Your task to perform on an android device: change keyboard looks Image 0: 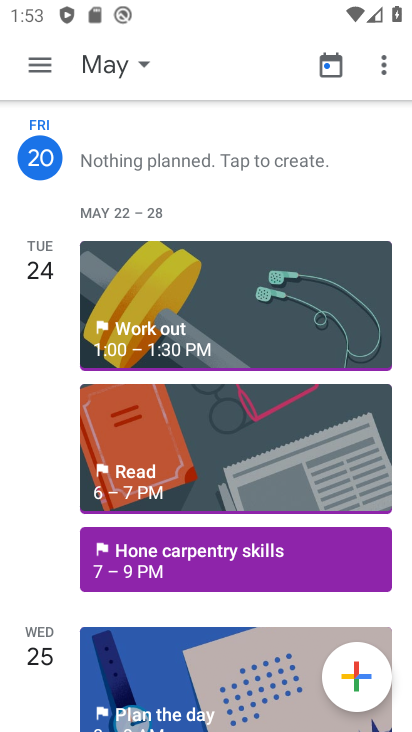
Step 0: press home button
Your task to perform on an android device: change keyboard looks Image 1: 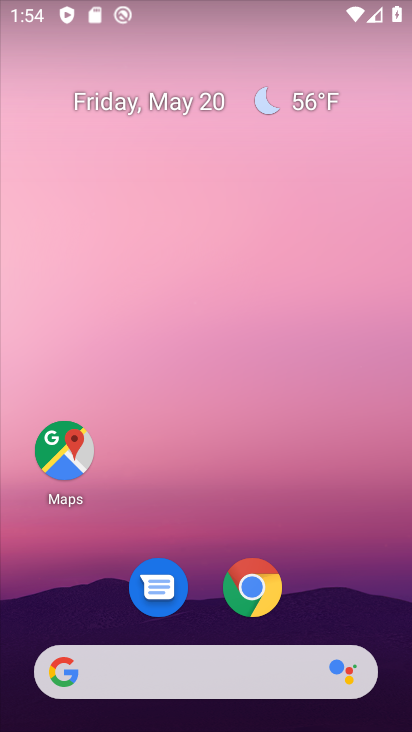
Step 1: drag from (355, 559) to (311, 55)
Your task to perform on an android device: change keyboard looks Image 2: 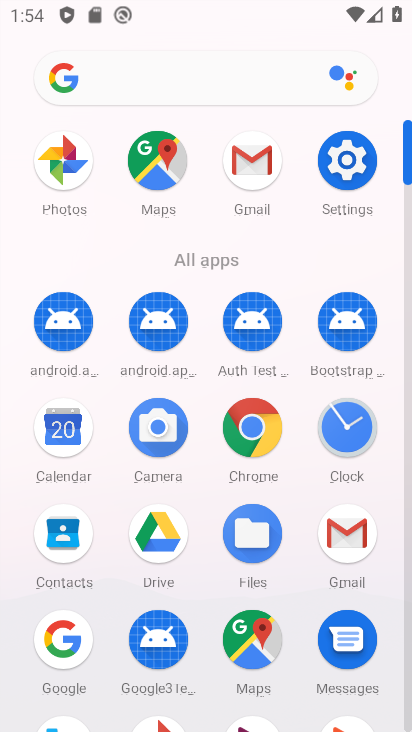
Step 2: click (327, 182)
Your task to perform on an android device: change keyboard looks Image 3: 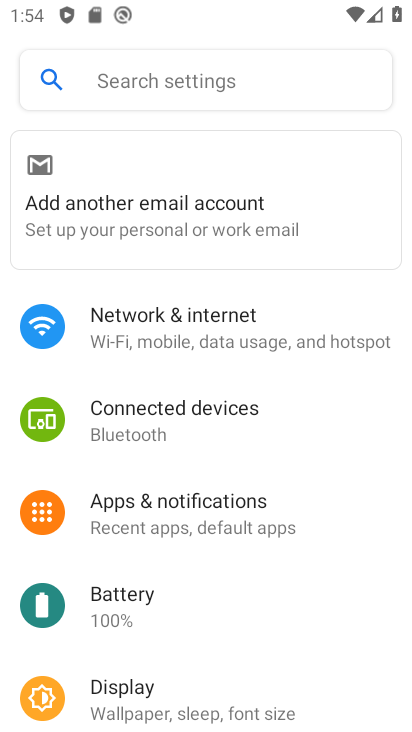
Step 3: drag from (334, 487) to (267, 102)
Your task to perform on an android device: change keyboard looks Image 4: 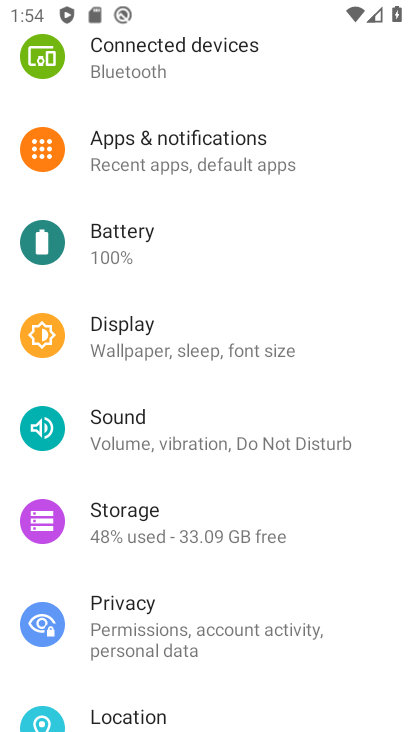
Step 4: drag from (280, 631) to (250, 240)
Your task to perform on an android device: change keyboard looks Image 5: 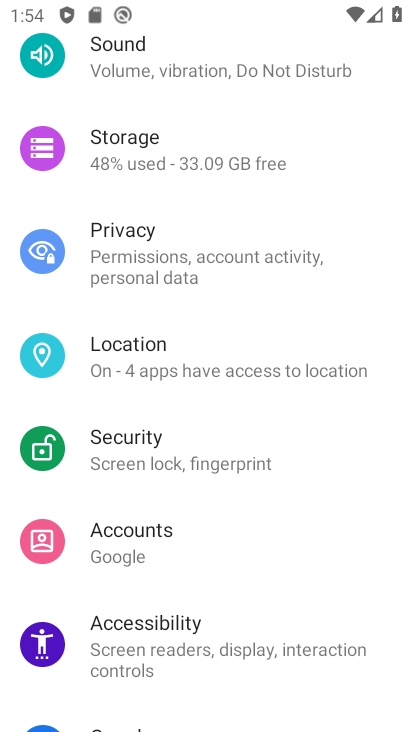
Step 5: drag from (214, 638) to (233, 230)
Your task to perform on an android device: change keyboard looks Image 6: 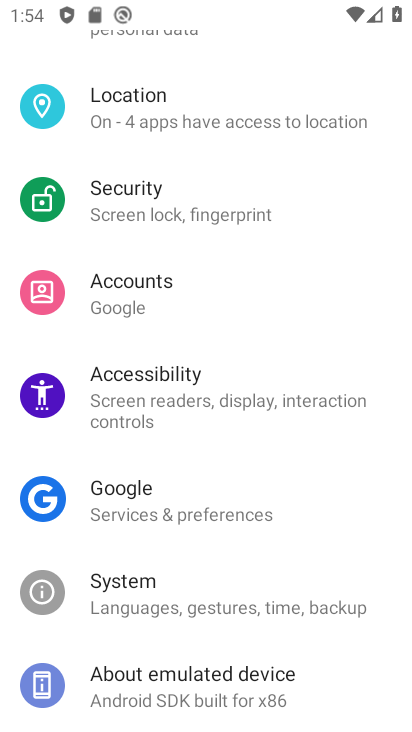
Step 6: click (169, 591)
Your task to perform on an android device: change keyboard looks Image 7: 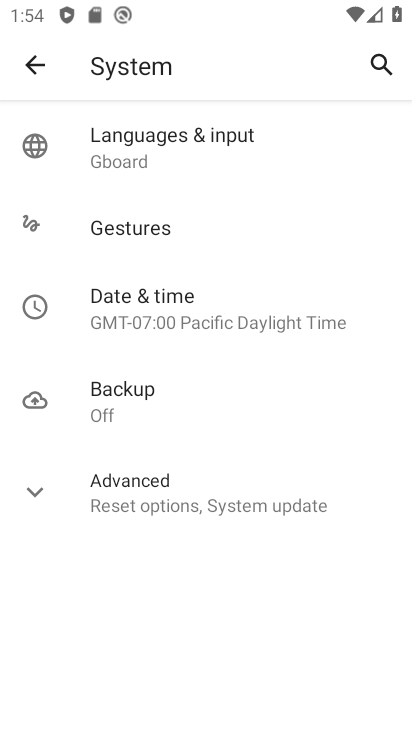
Step 7: click (138, 154)
Your task to perform on an android device: change keyboard looks Image 8: 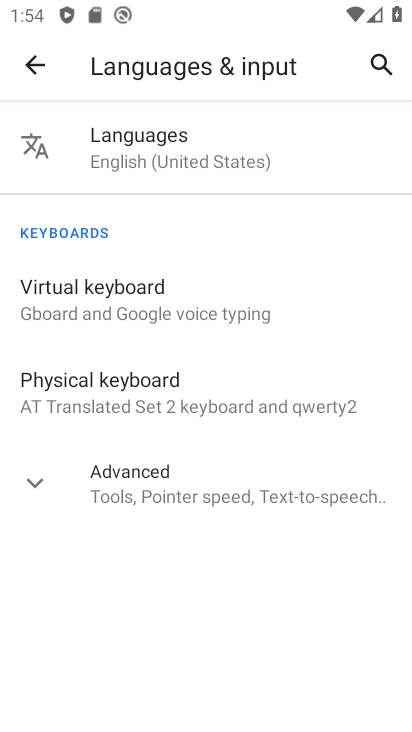
Step 8: click (181, 319)
Your task to perform on an android device: change keyboard looks Image 9: 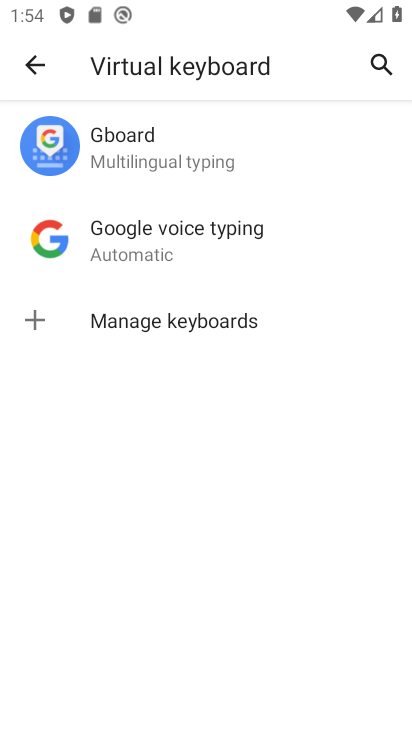
Step 9: click (155, 175)
Your task to perform on an android device: change keyboard looks Image 10: 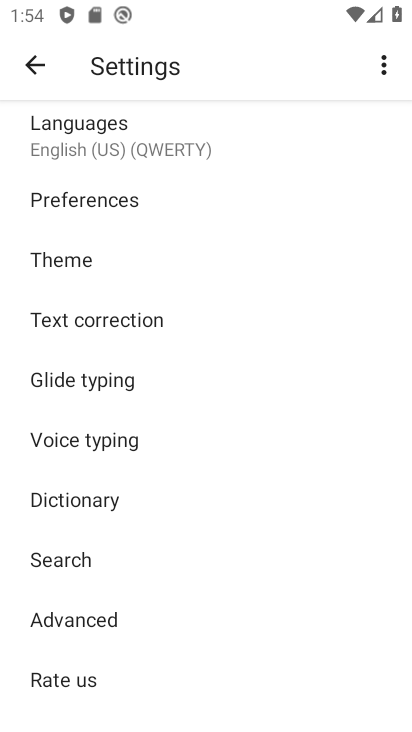
Step 10: click (98, 262)
Your task to perform on an android device: change keyboard looks Image 11: 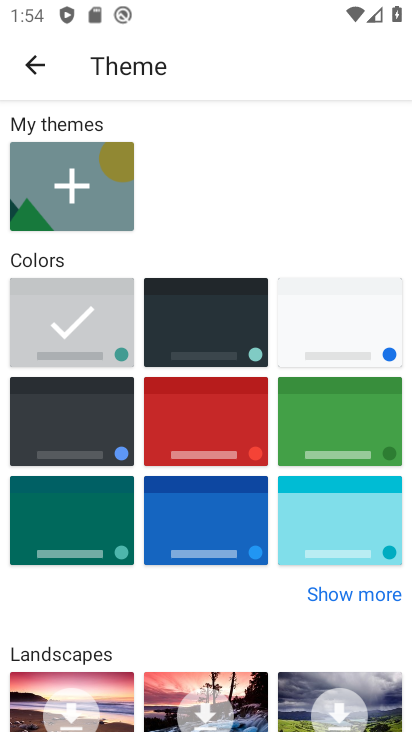
Step 11: click (213, 408)
Your task to perform on an android device: change keyboard looks Image 12: 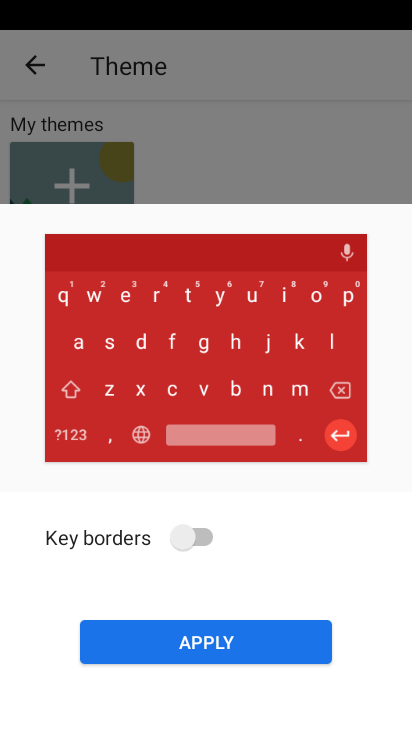
Step 12: click (184, 531)
Your task to perform on an android device: change keyboard looks Image 13: 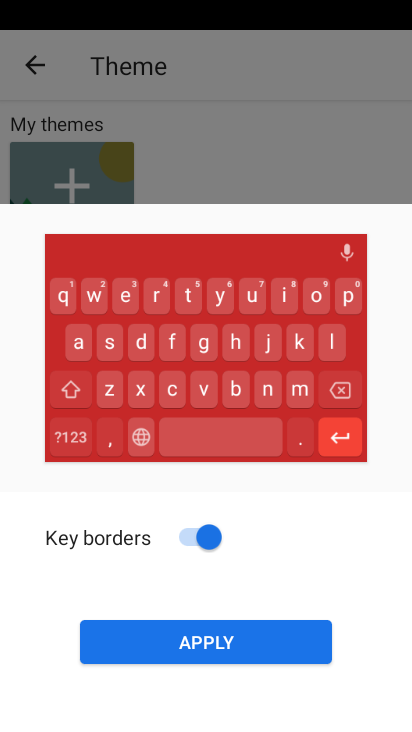
Step 13: click (260, 641)
Your task to perform on an android device: change keyboard looks Image 14: 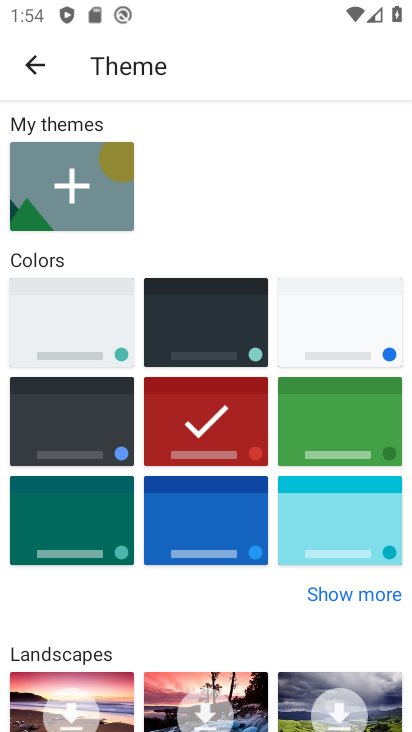
Step 14: task complete